Your task to perform on an android device: change notifications settings Image 0: 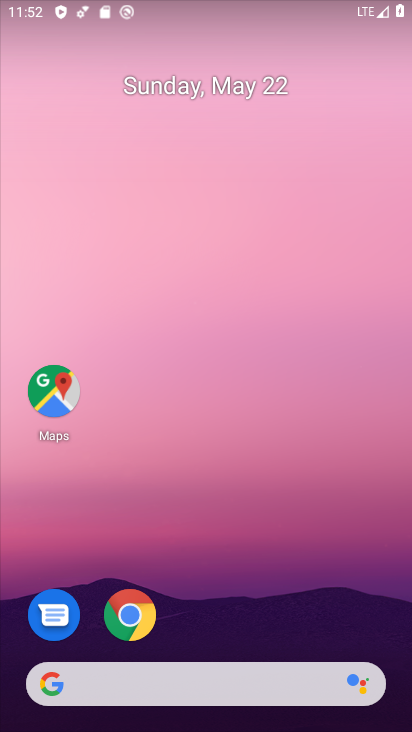
Step 0: drag from (217, 601) to (281, 140)
Your task to perform on an android device: change notifications settings Image 1: 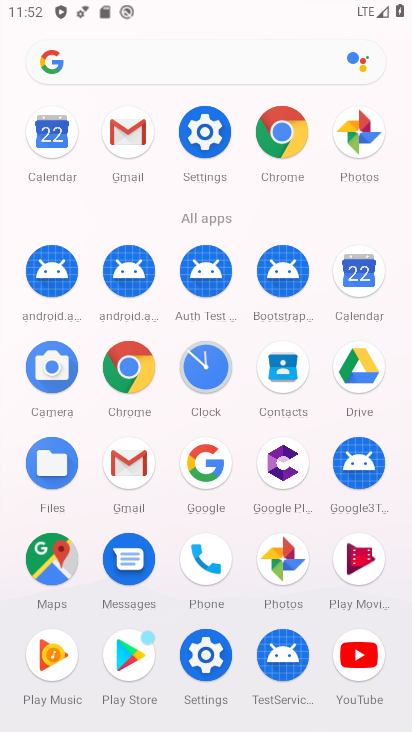
Step 1: click (217, 134)
Your task to perform on an android device: change notifications settings Image 2: 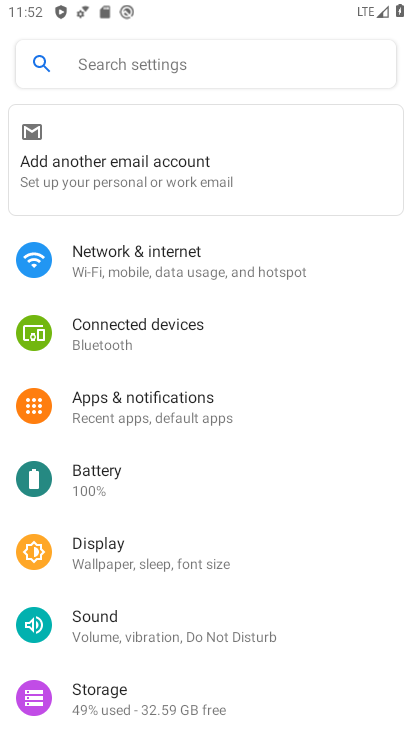
Step 2: click (163, 382)
Your task to perform on an android device: change notifications settings Image 3: 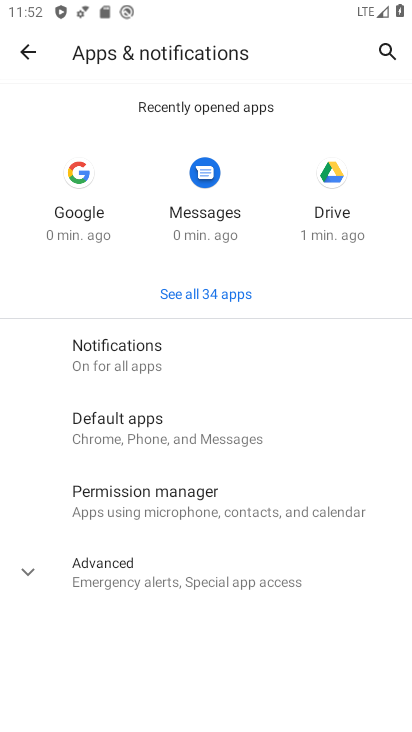
Step 3: click (157, 361)
Your task to perform on an android device: change notifications settings Image 4: 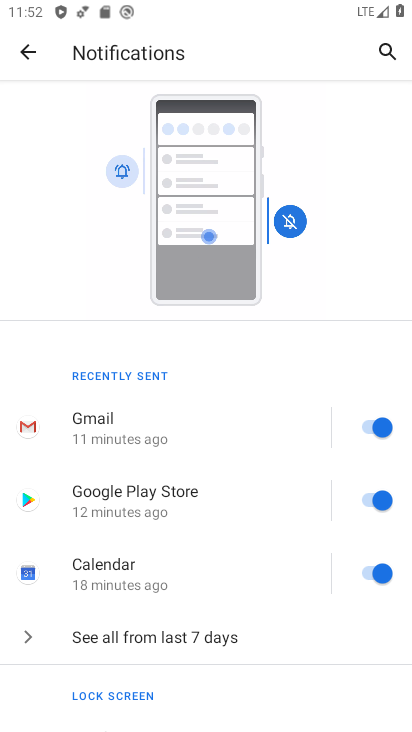
Step 4: drag from (232, 597) to (297, 129)
Your task to perform on an android device: change notifications settings Image 5: 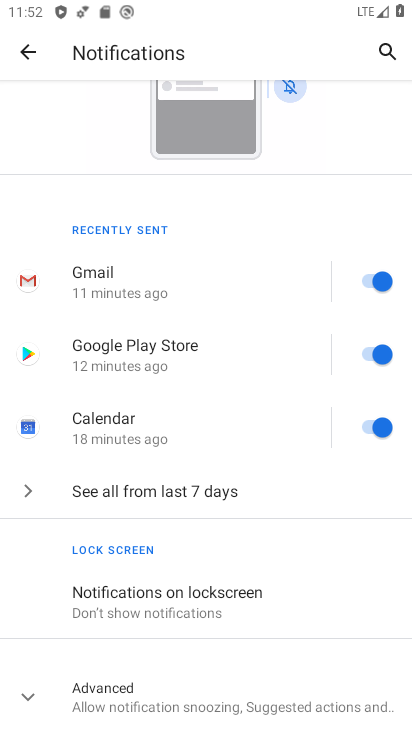
Step 5: click (174, 689)
Your task to perform on an android device: change notifications settings Image 6: 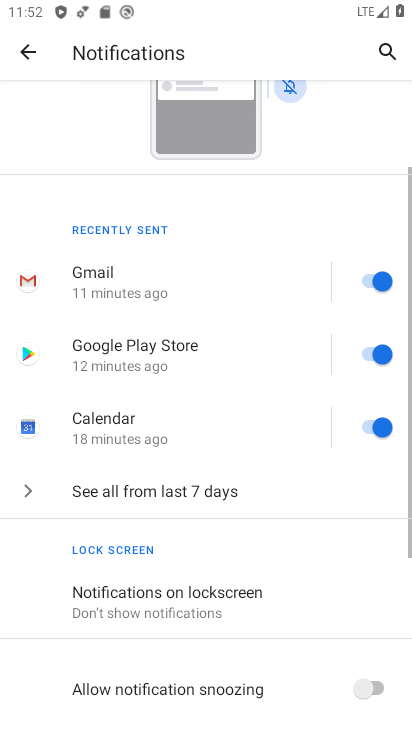
Step 6: drag from (183, 598) to (219, 371)
Your task to perform on an android device: change notifications settings Image 7: 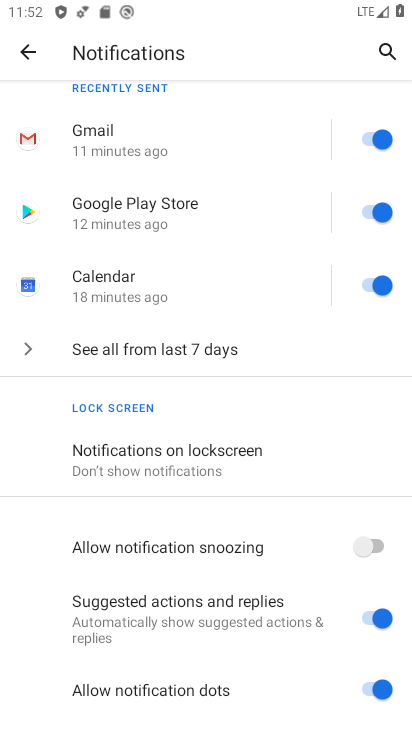
Step 7: click (360, 540)
Your task to perform on an android device: change notifications settings Image 8: 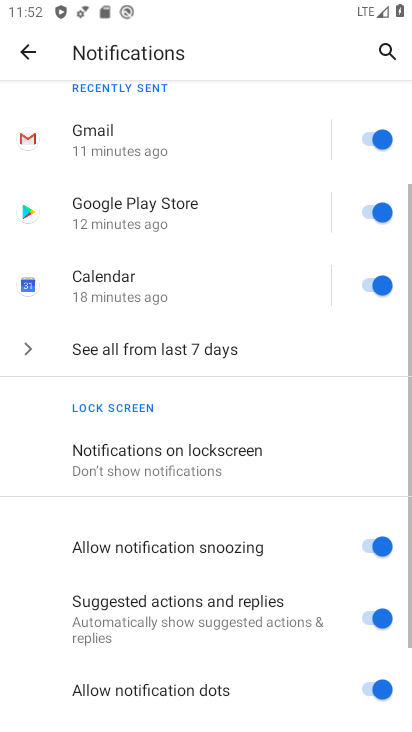
Step 8: task complete